Your task to perform on an android device: Open Google Chrome and open the bookmarks view Image 0: 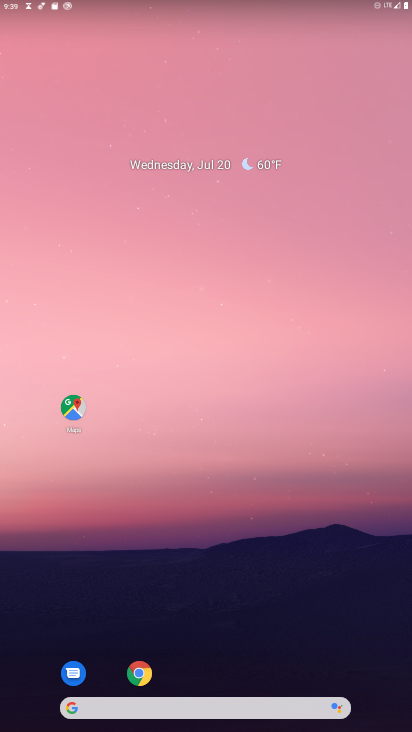
Step 0: click (142, 677)
Your task to perform on an android device: Open Google Chrome and open the bookmarks view Image 1: 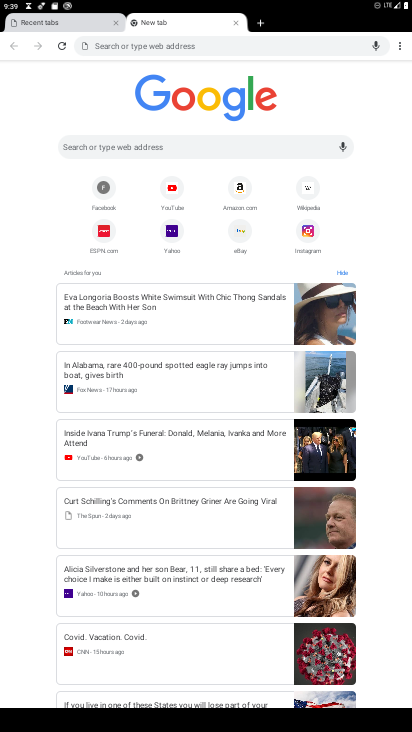
Step 1: click (400, 47)
Your task to perform on an android device: Open Google Chrome and open the bookmarks view Image 2: 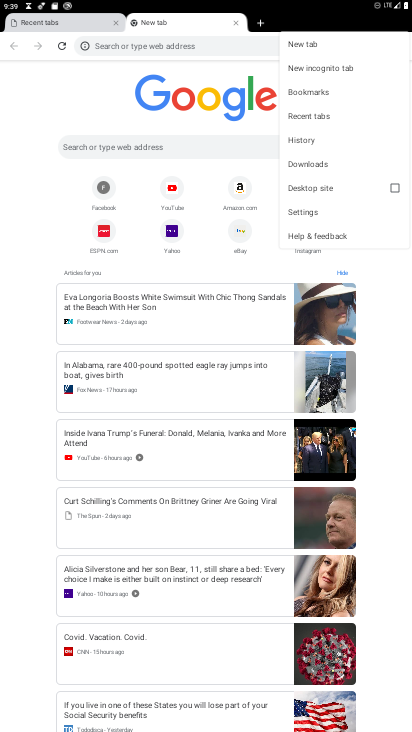
Step 2: click (303, 92)
Your task to perform on an android device: Open Google Chrome and open the bookmarks view Image 3: 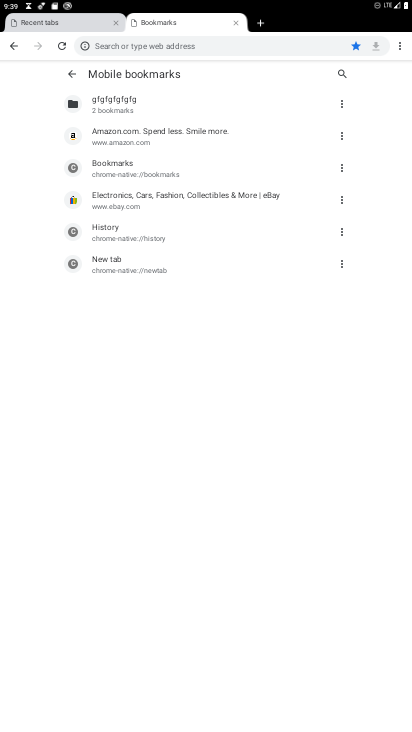
Step 3: task complete